Your task to perform on an android device: Is it going to rain today? Image 0: 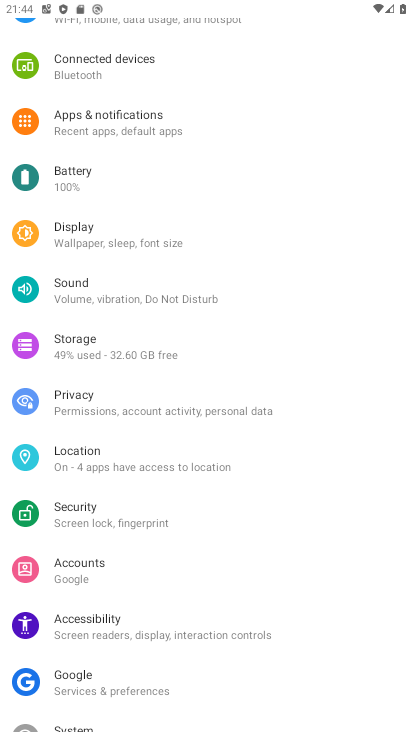
Step 0: press home button
Your task to perform on an android device: Is it going to rain today? Image 1: 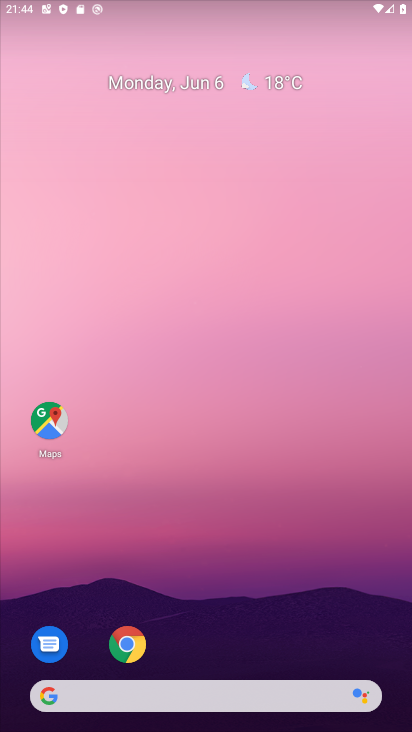
Step 1: drag from (307, 588) to (256, 136)
Your task to perform on an android device: Is it going to rain today? Image 2: 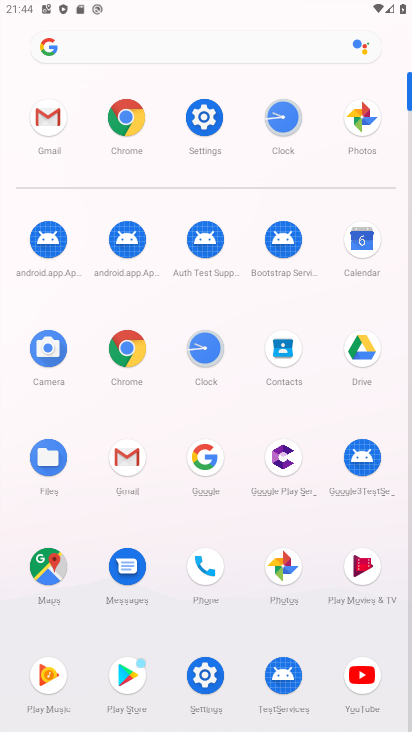
Step 2: click (130, 350)
Your task to perform on an android device: Is it going to rain today? Image 3: 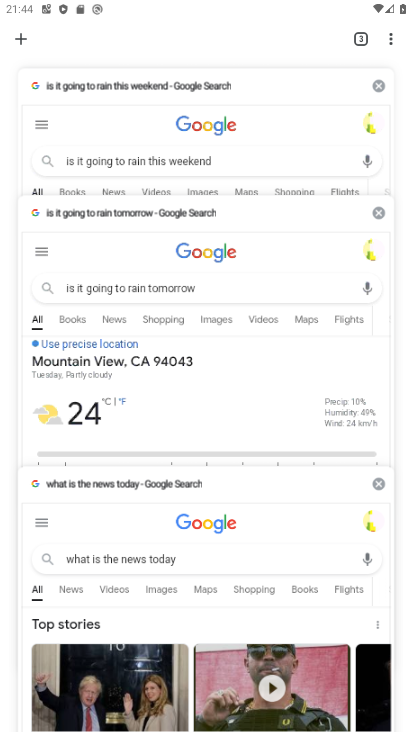
Step 3: click (18, 38)
Your task to perform on an android device: Is it going to rain today? Image 4: 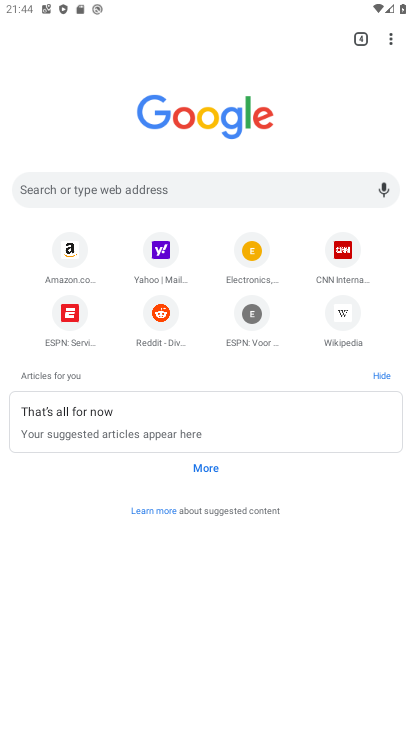
Step 4: click (185, 190)
Your task to perform on an android device: Is it going to rain today? Image 5: 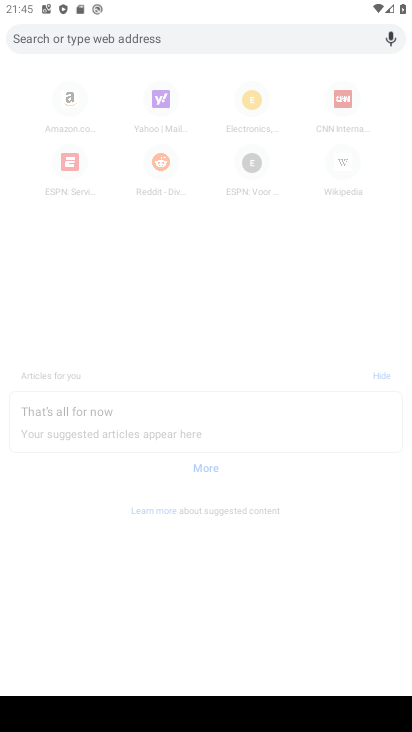
Step 5: type "is it going to rain today"
Your task to perform on an android device: Is it going to rain today? Image 6: 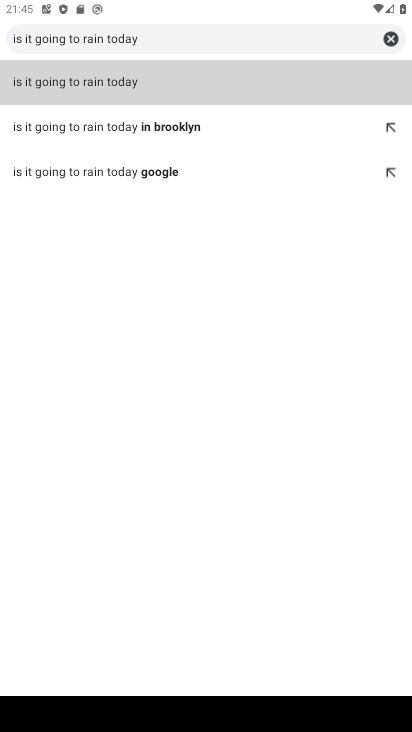
Step 6: click (139, 72)
Your task to perform on an android device: Is it going to rain today? Image 7: 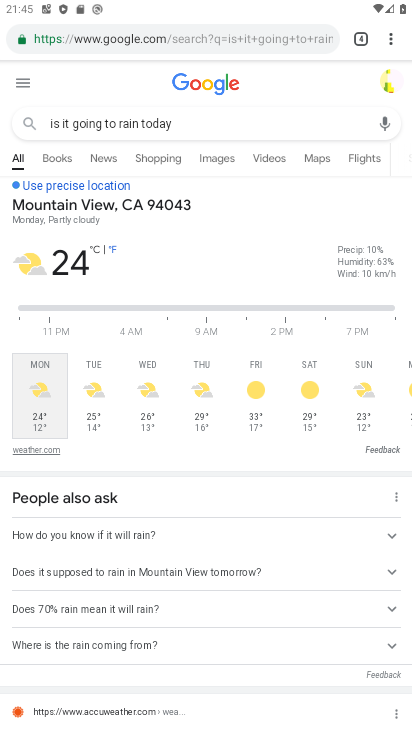
Step 7: task complete